Your task to perform on an android device: Go to Android settings Image 0: 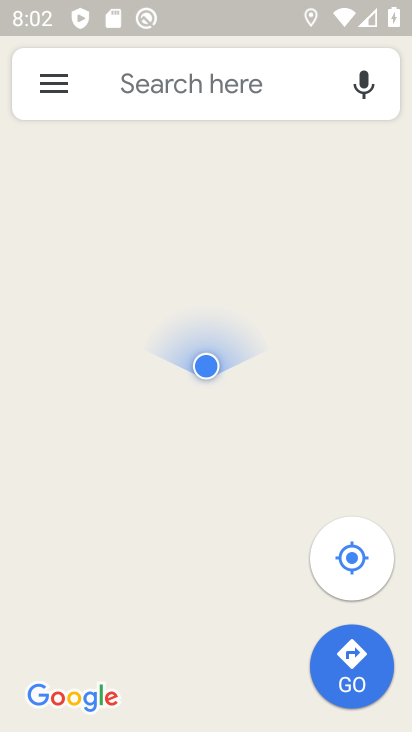
Step 0: press home button
Your task to perform on an android device: Go to Android settings Image 1: 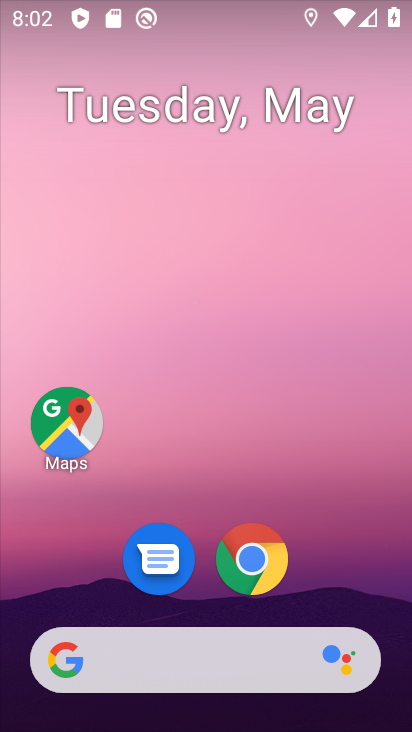
Step 1: drag from (159, 593) to (151, 47)
Your task to perform on an android device: Go to Android settings Image 2: 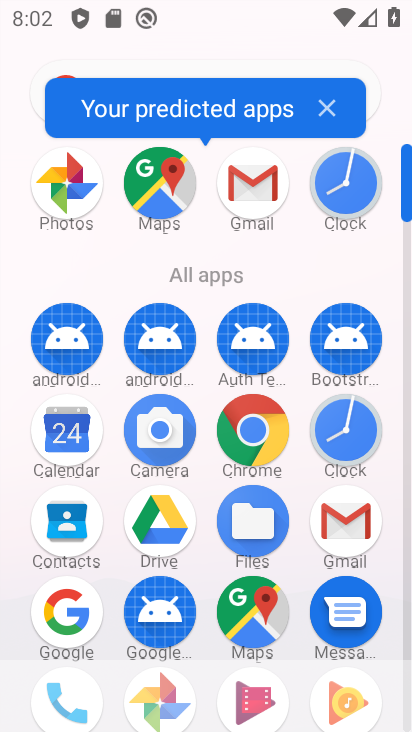
Step 2: drag from (202, 557) to (223, 66)
Your task to perform on an android device: Go to Android settings Image 3: 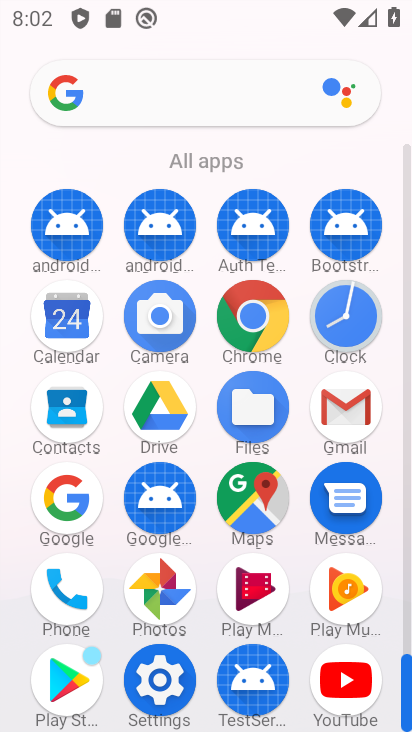
Step 3: click (140, 681)
Your task to perform on an android device: Go to Android settings Image 4: 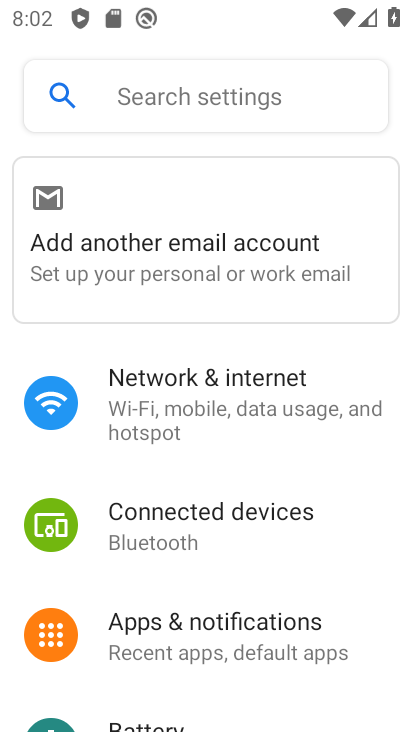
Step 4: task complete